Your task to perform on an android device: Open privacy settings Image 0: 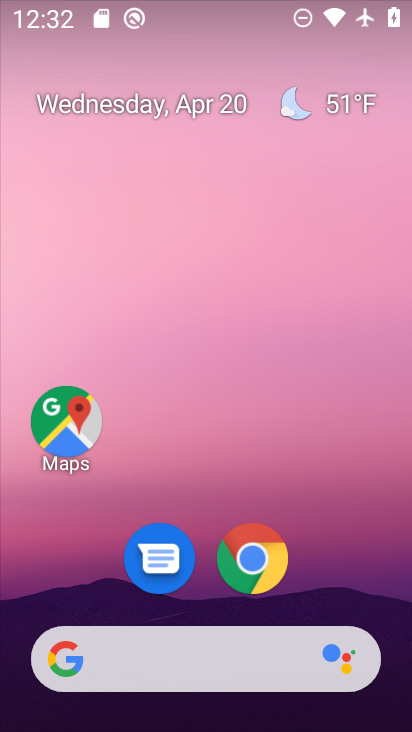
Step 0: drag from (371, 604) to (250, 135)
Your task to perform on an android device: Open privacy settings Image 1: 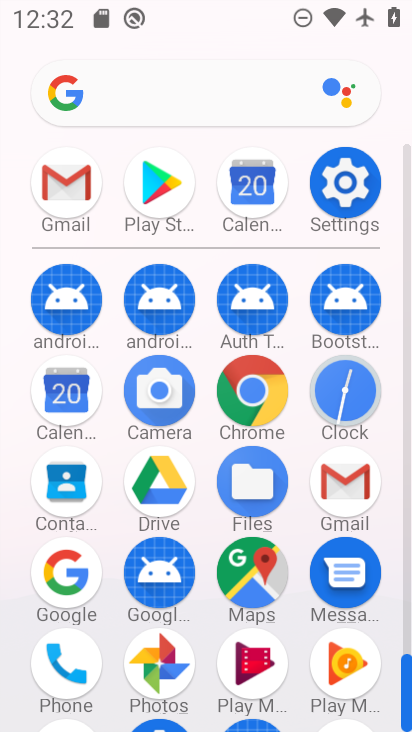
Step 1: drag from (407, 640) to (404, 594)
Your task to perform on an android device: Open privacy settings Image 2: 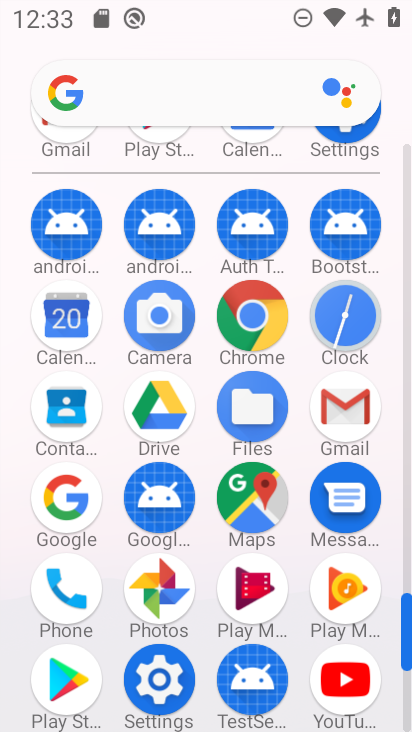
Step 2: click (155, 677)
Your task to perform on an android device: Open privacy settings Image 3: 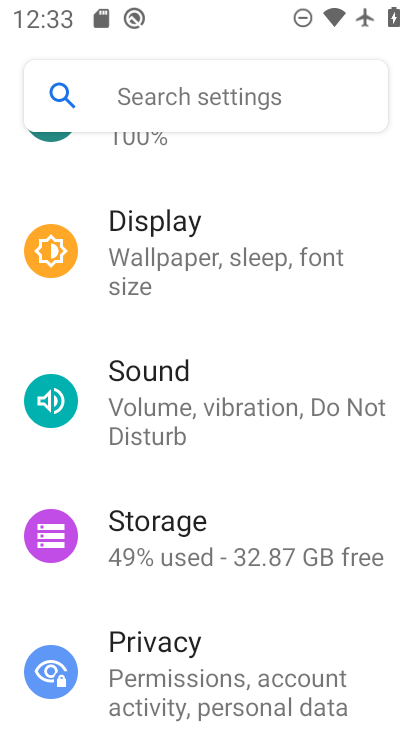
Step 3: click (159, 674)
Your task to perform on an android device: Open privacy settings Image 4: 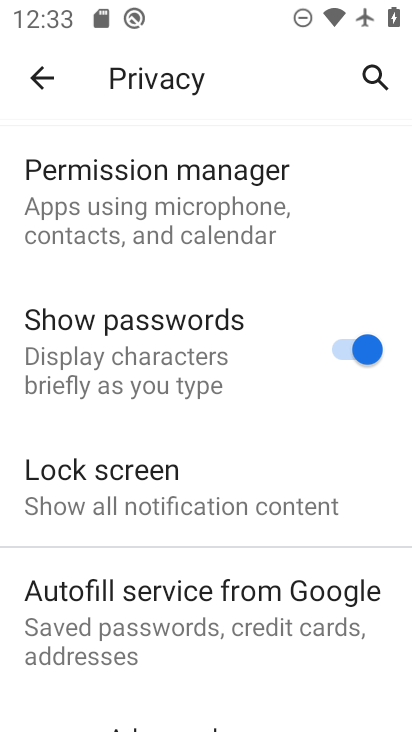
Step 4: drag from (223, 556) to (177, 132)
Your task to perform on an android device: Open privacy settings Image 5: 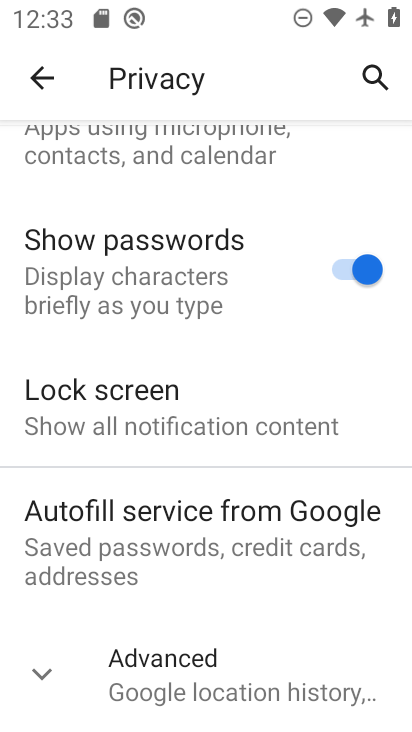
Step 5: click (43, 670)
Your task to perform on an android device: Open privacy settings Image 6: 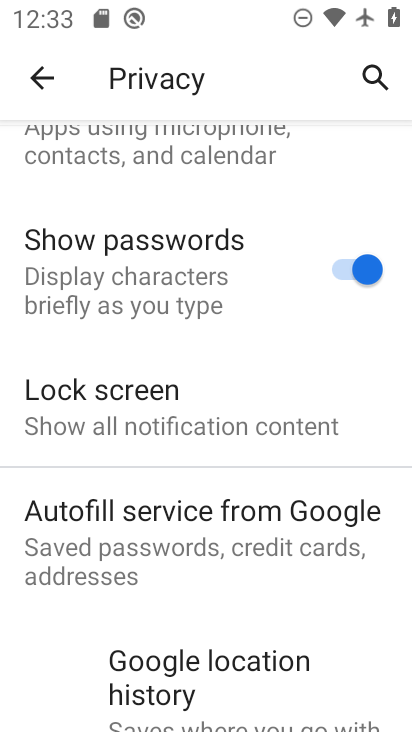
Step 6: task complete